Your task to perform on an android device: manage bookmarks in the chrome app Image 0: 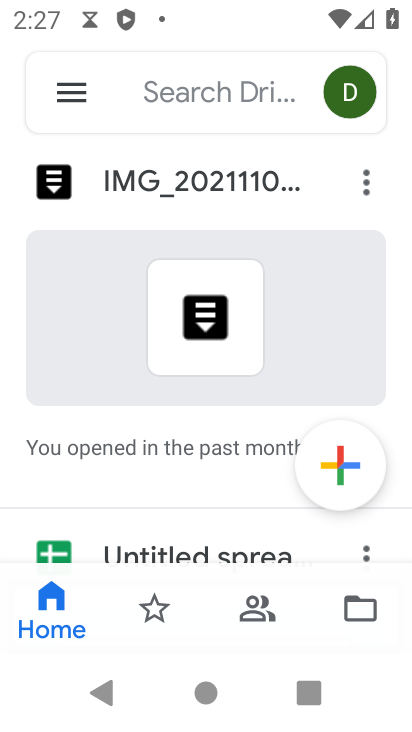
Step 0: press back button
Your task to perform on an android device: manage bookmarks in the chrome app Image 1: 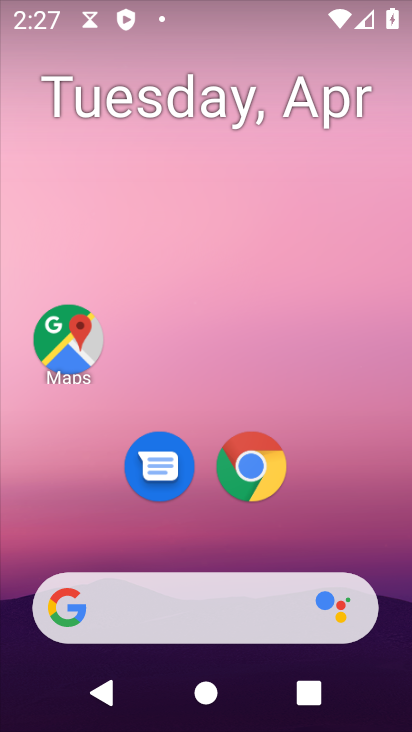
Step 1: drag from (394, 662) to (353, 108)
Your task to perform on an android device: manage bookmarks in the chrome app Image 2: 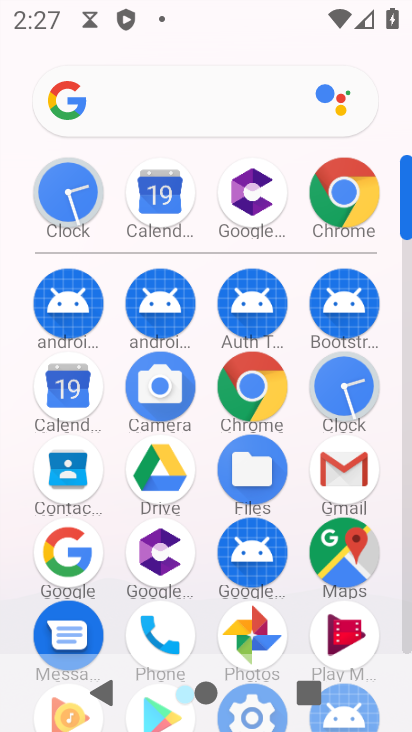
Step 2: click (346, 198)
Your task to perform on an android device: manage bookmarks in the chrome app Image 3: 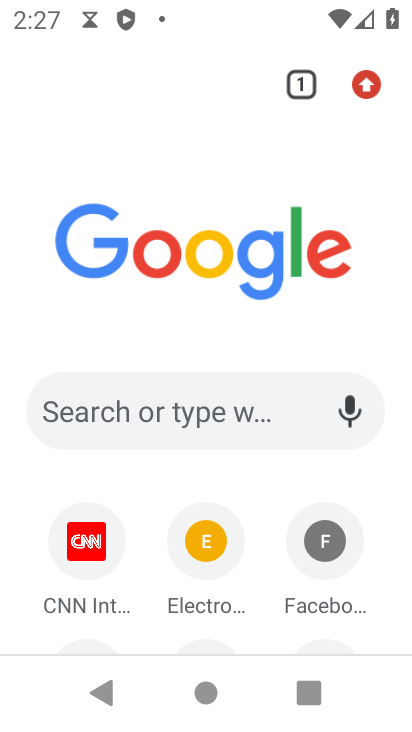
Step 3: task complete